Your task to perform on an android device: allow notifications from all sites in the chrome app Image 0: 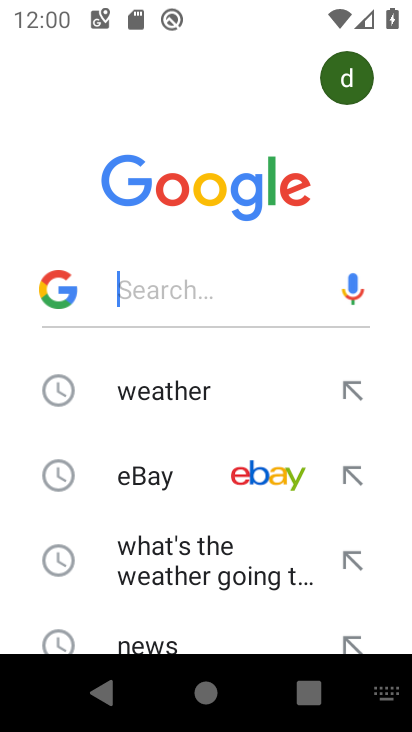
Step 0: press home button
Your task to perform on an android device: allow notifications from all sites in the chrome app Image 1: 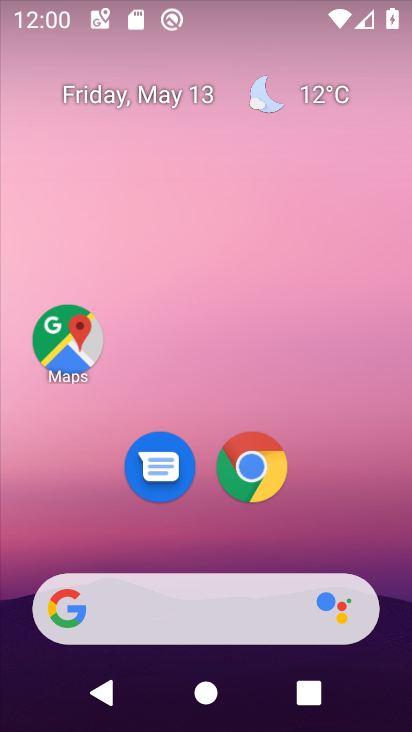
Step 1: click (231, 476)
Your task to perform on an android device: allow notifications from all sites in the chrome app Image 2: 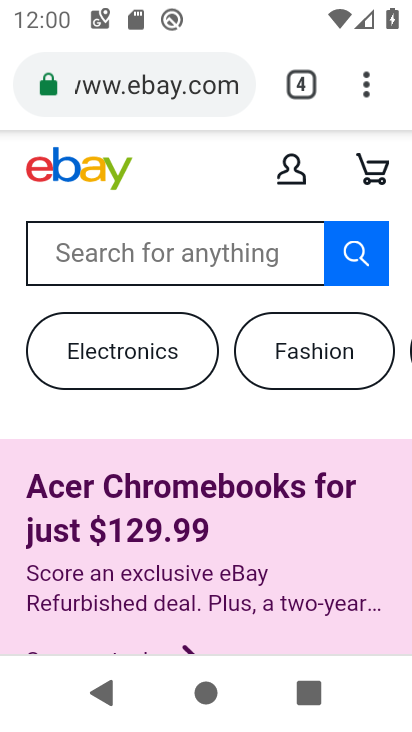
Step 2: click (363, 69)
Your task to perform on an android device: allow notifications from all sites in the chrome app Image 3: 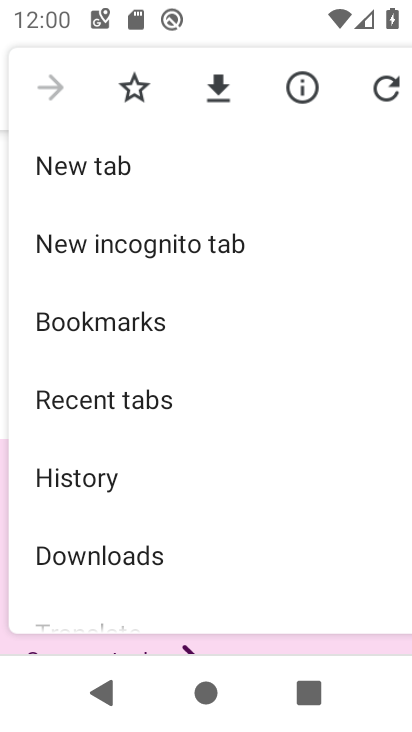
Step 3: drag from (154, 521) to (98, 63)
Your task to perform on an android device: allow notifications from all sites in the chrome app Image 4: 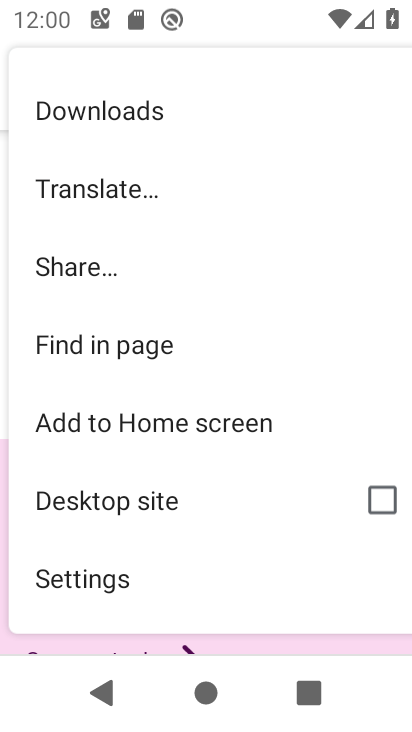
Step 4: click (106, 585)
Your task to perform on an android device: allow notifications from all sites in the chrome app Image 5: 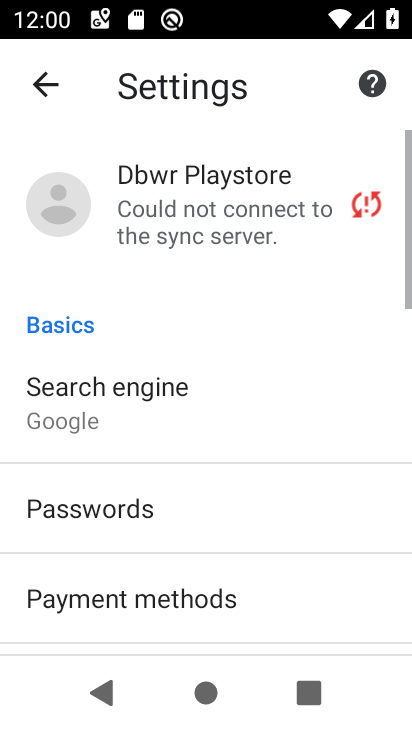
Step 5: drag from (220, 575) to (168, 112)
Your task to perform on an android device: allow notifications from all sites in the chrome app Image 6: 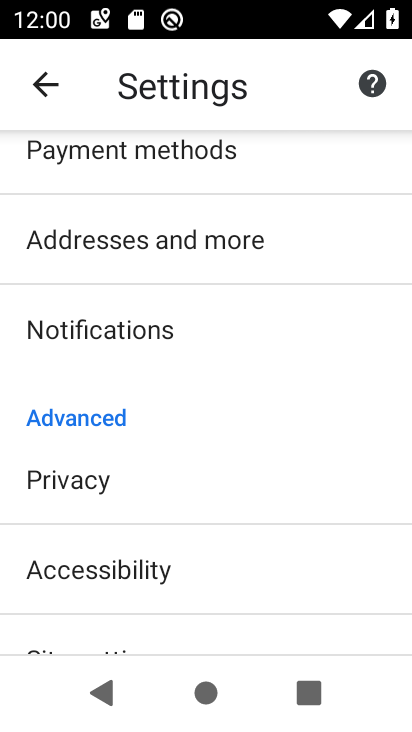
Step 6: drag from (173, 530) to (162, 240)
Your task to perform on an android device: allow notifications from all sites in the chrome app Image 7: 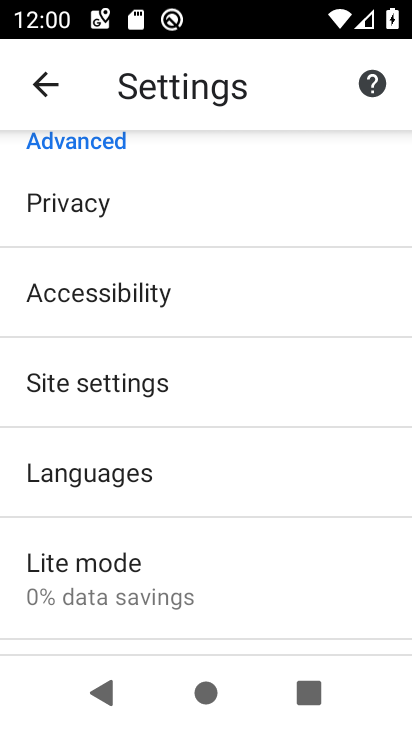
Step 7: click (133, 368)
Your task to perform on an android device: allow notifications from all sites in the chrome app Image 8: 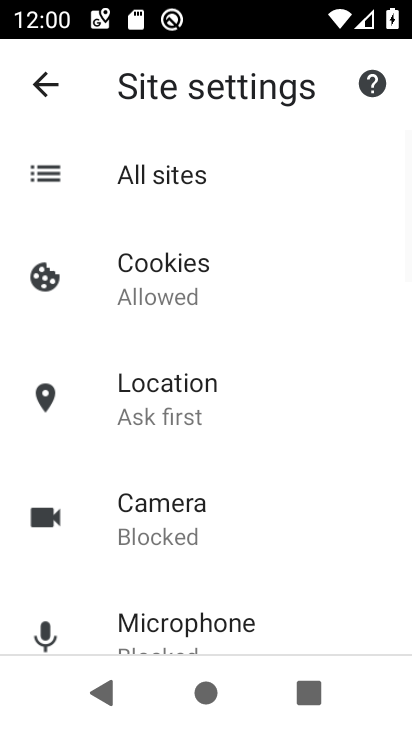
Step 8: drag from (196, 602) to (157, 207)
Your task to perform on an android device: allow notifications from all sites in the chrome app Image 9: 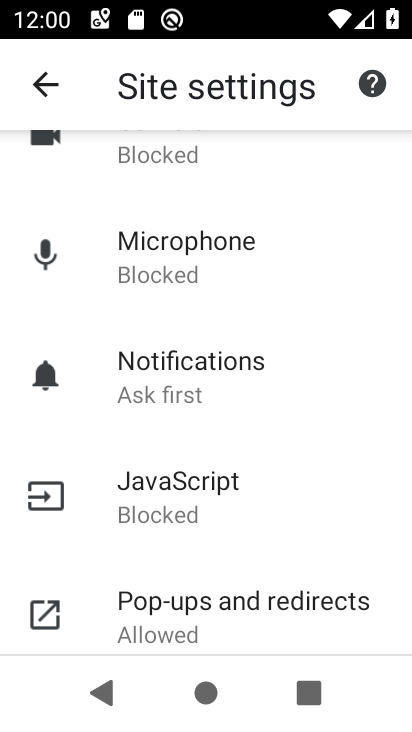
Step 9: click (208, 361)
Your task to perform on an android device: allow notifications from all sites in the chrome app Image 10: 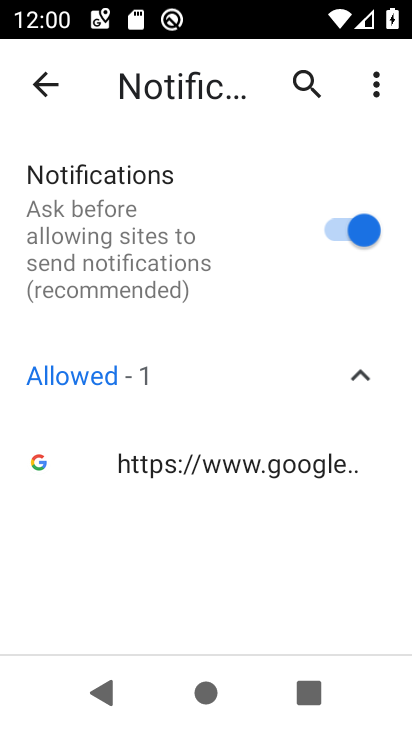
Step 10: task complete